Your task to perform on an android device: turn off smart reply in the gmail app Image 0: 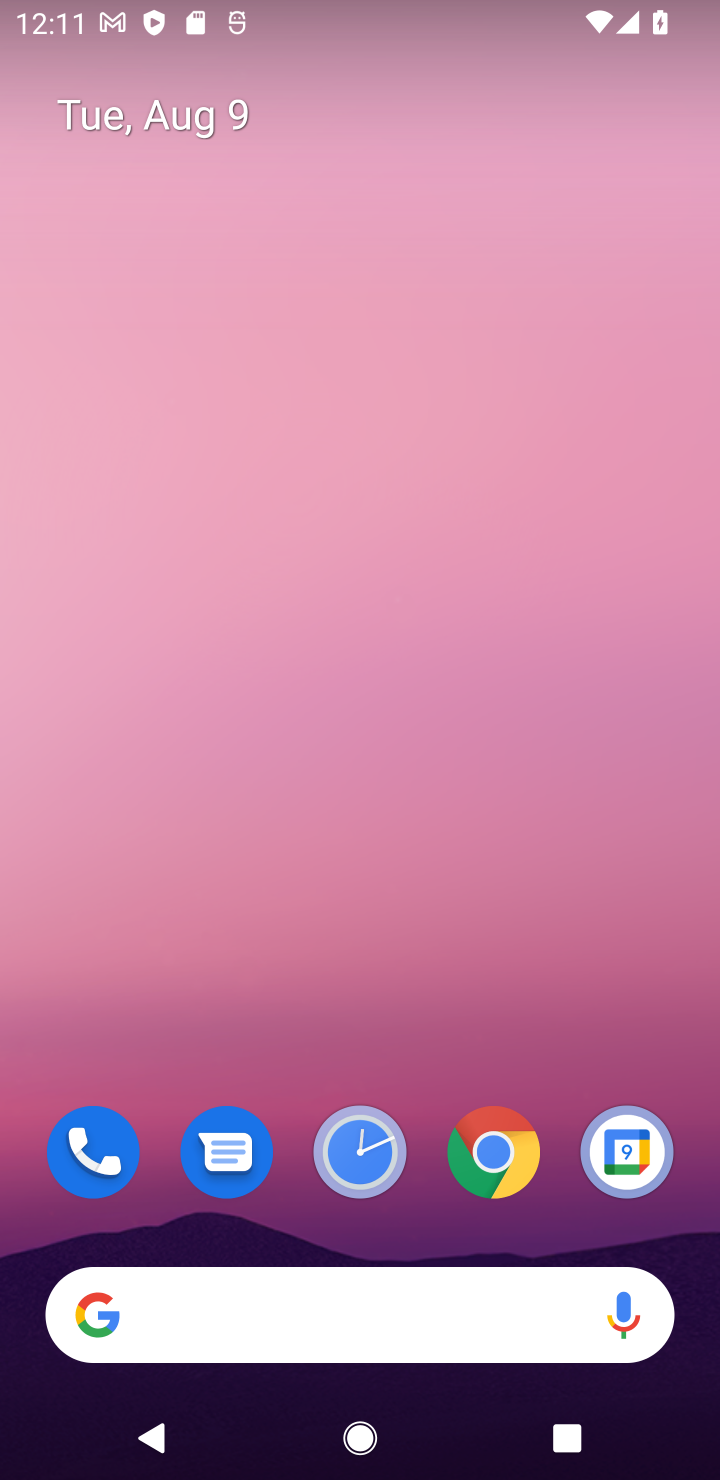
Step 0: drag from (403, 1044) to (365, 428)
Your task to perform on an android device: turn off smart reply in the gmail app Image 1: 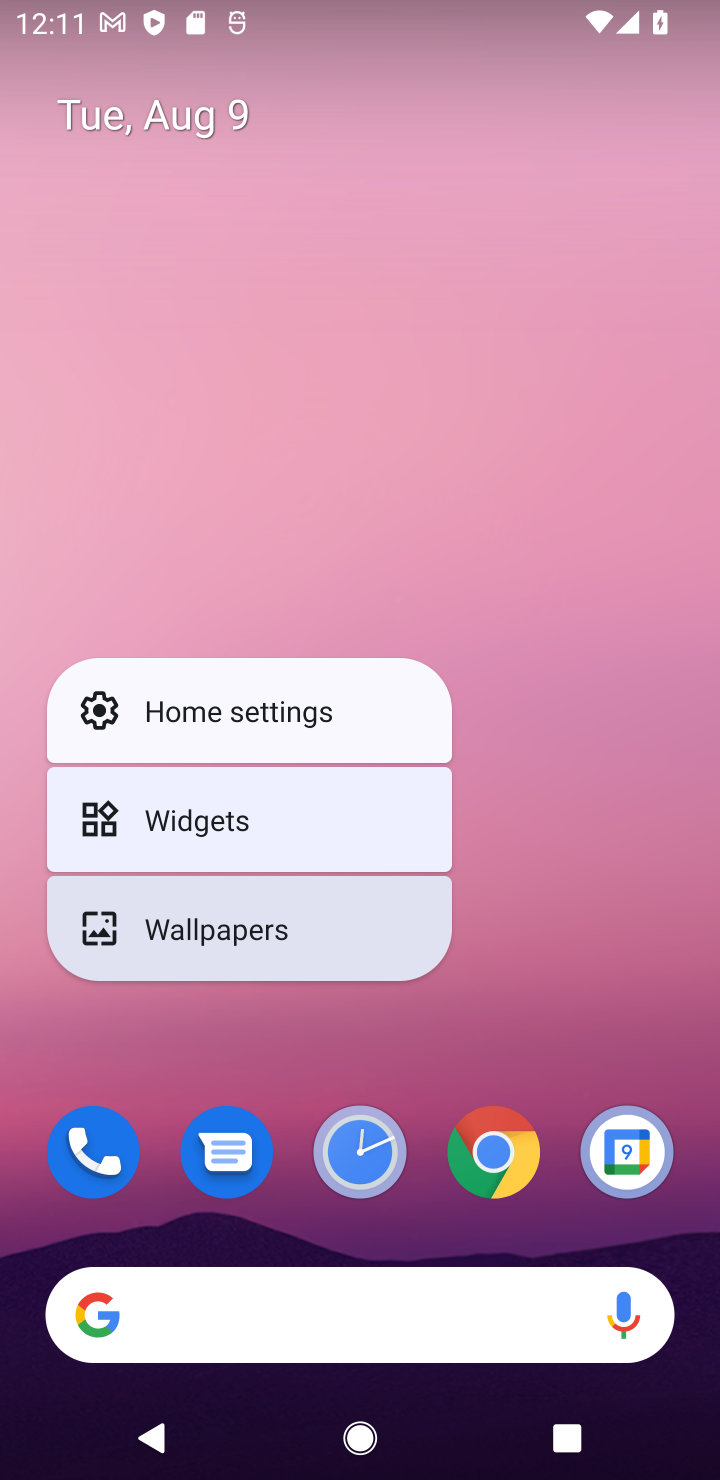
Step 1: click (516, 924)
Your task to perform on an android device: turn off smart reply in the gmail app Image 2: 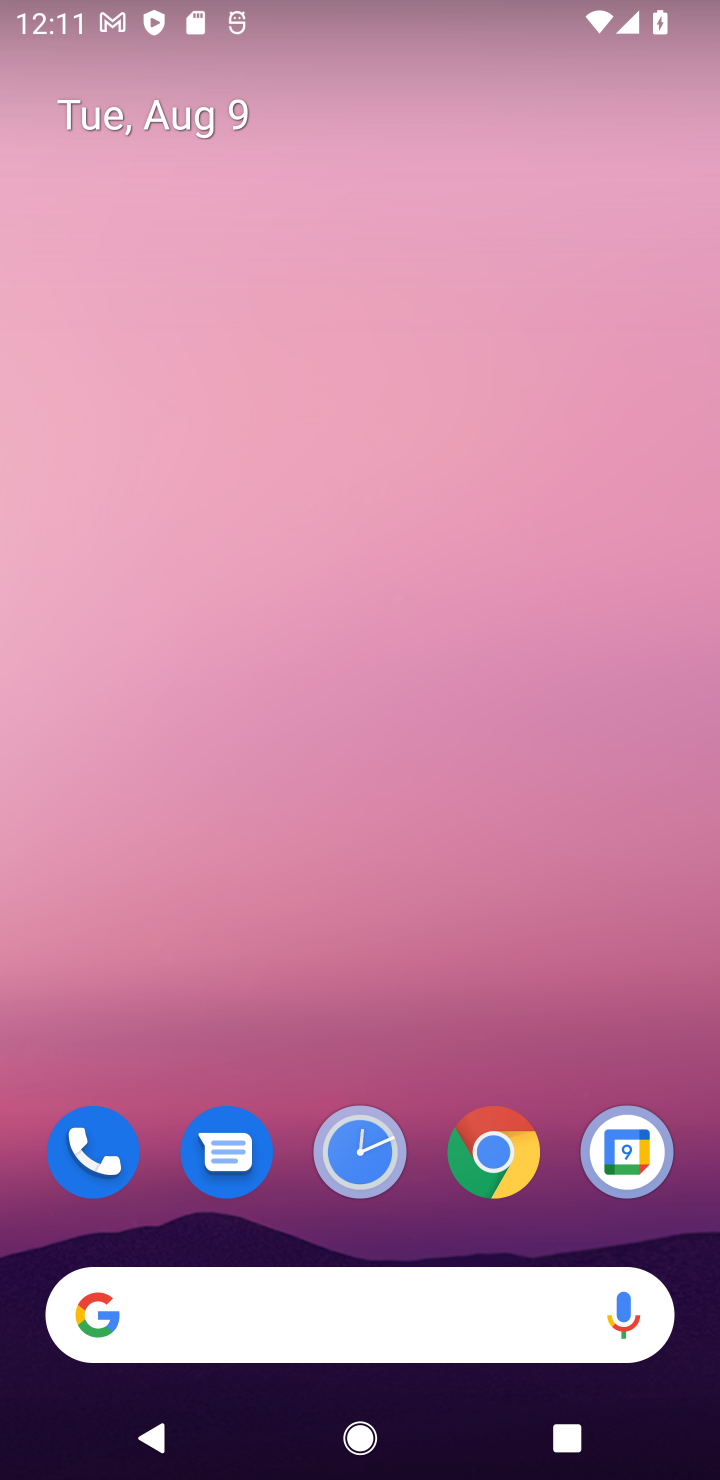
Step 2: drag from (621, 1019) to (560, 163)
Your task to perform on an android device: turn off smart reply in the gmail app Image 3: 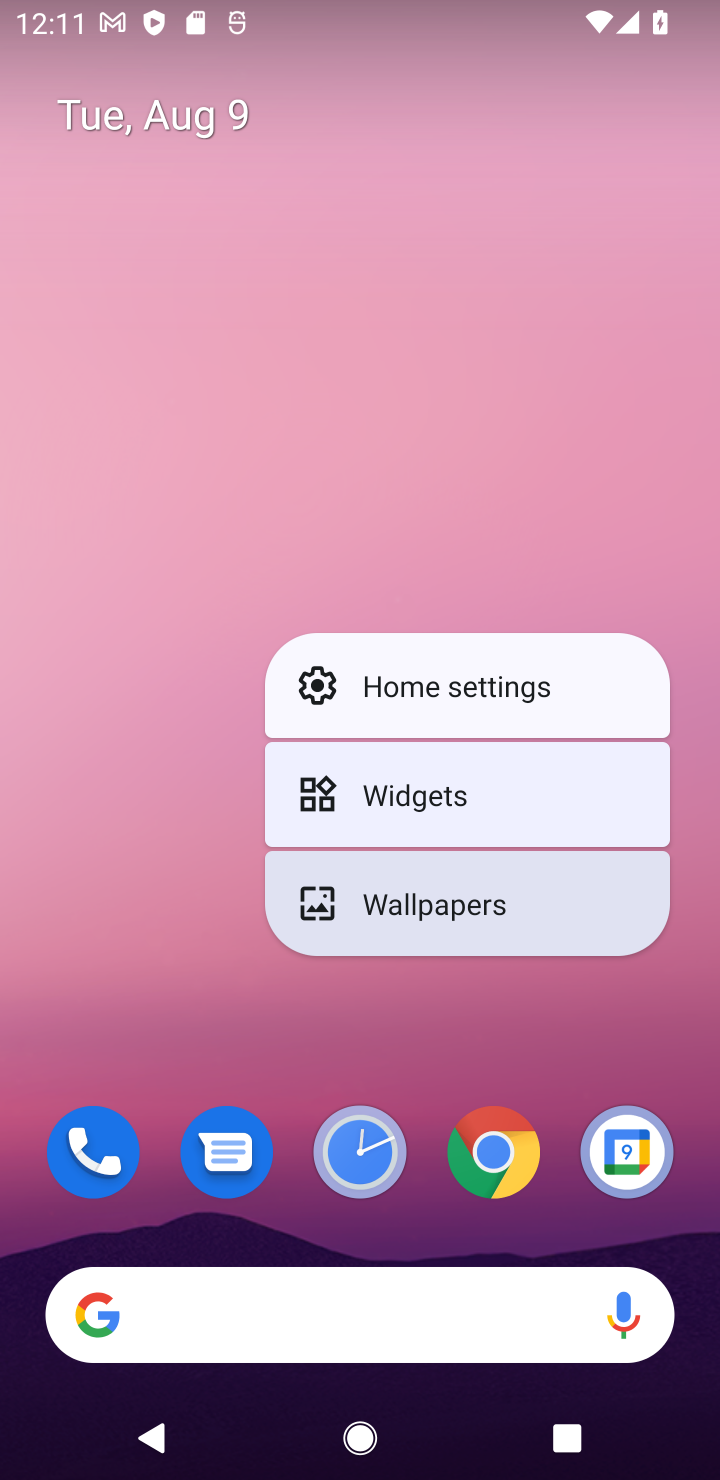
Step 3: click (626, 1041)
Your task to perform on an android device: turn off smart reply in the gmail app Image 4: 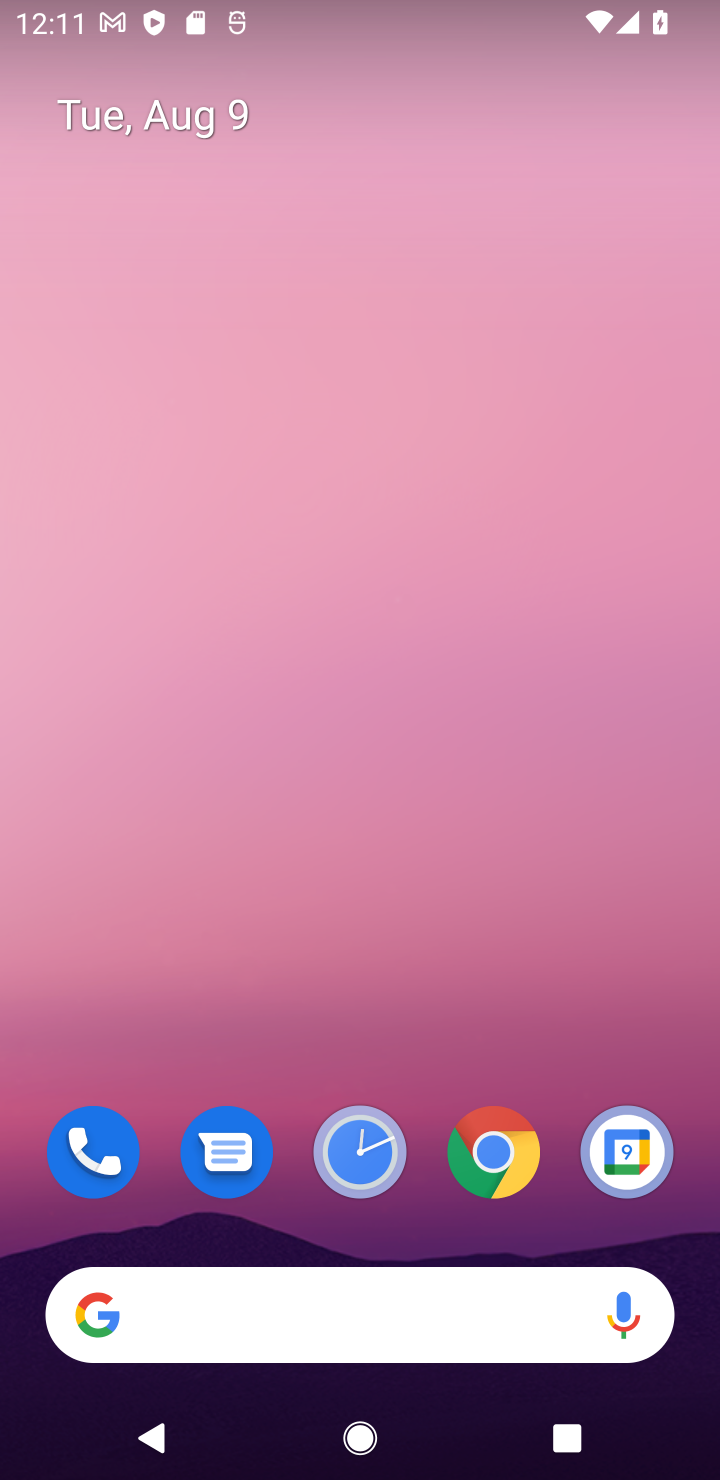
Step 4: drag from (438, 1083) to (477, 239)
Your task to perform on an android device: turn off smart reply in the gmail app Image 5: 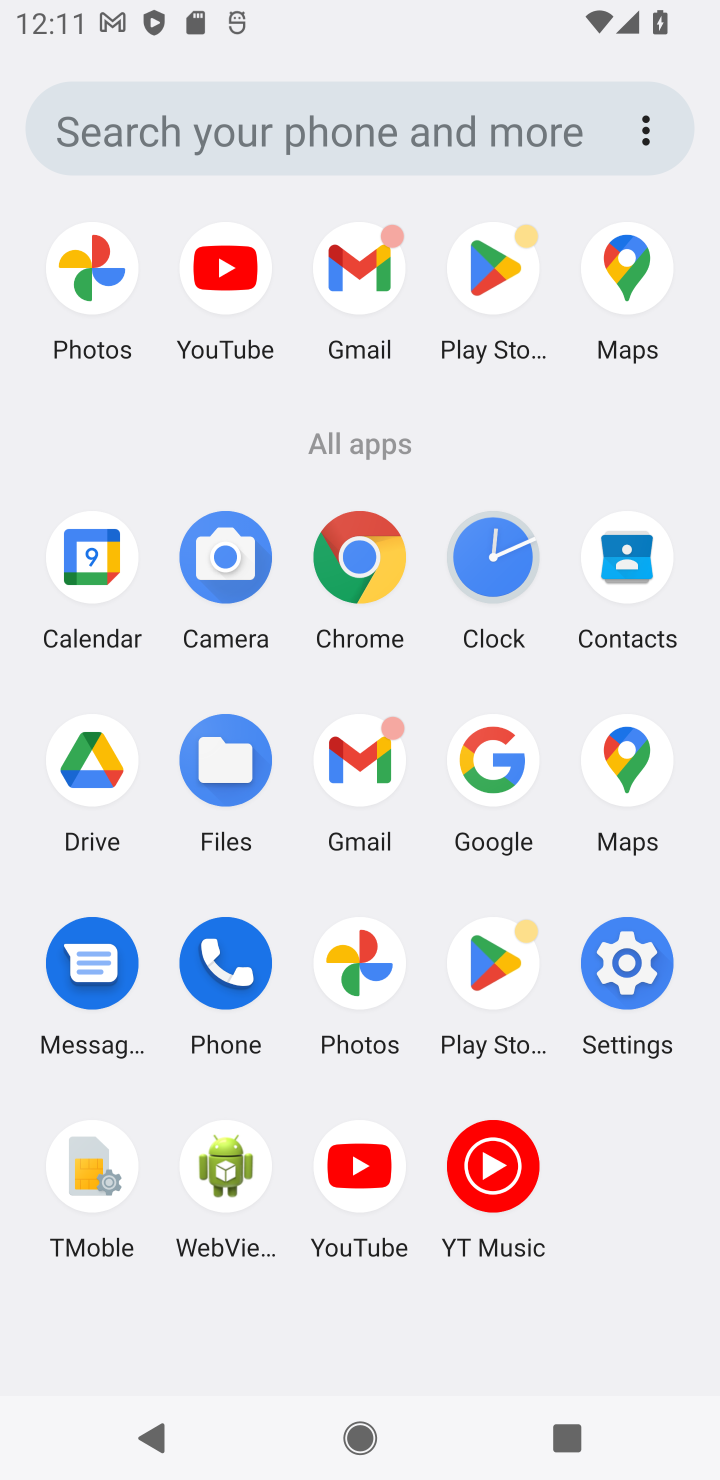
Step 5: click (365, 774)
Your task to perform on an android device: turn off smart reply in the gmail app Image 6: 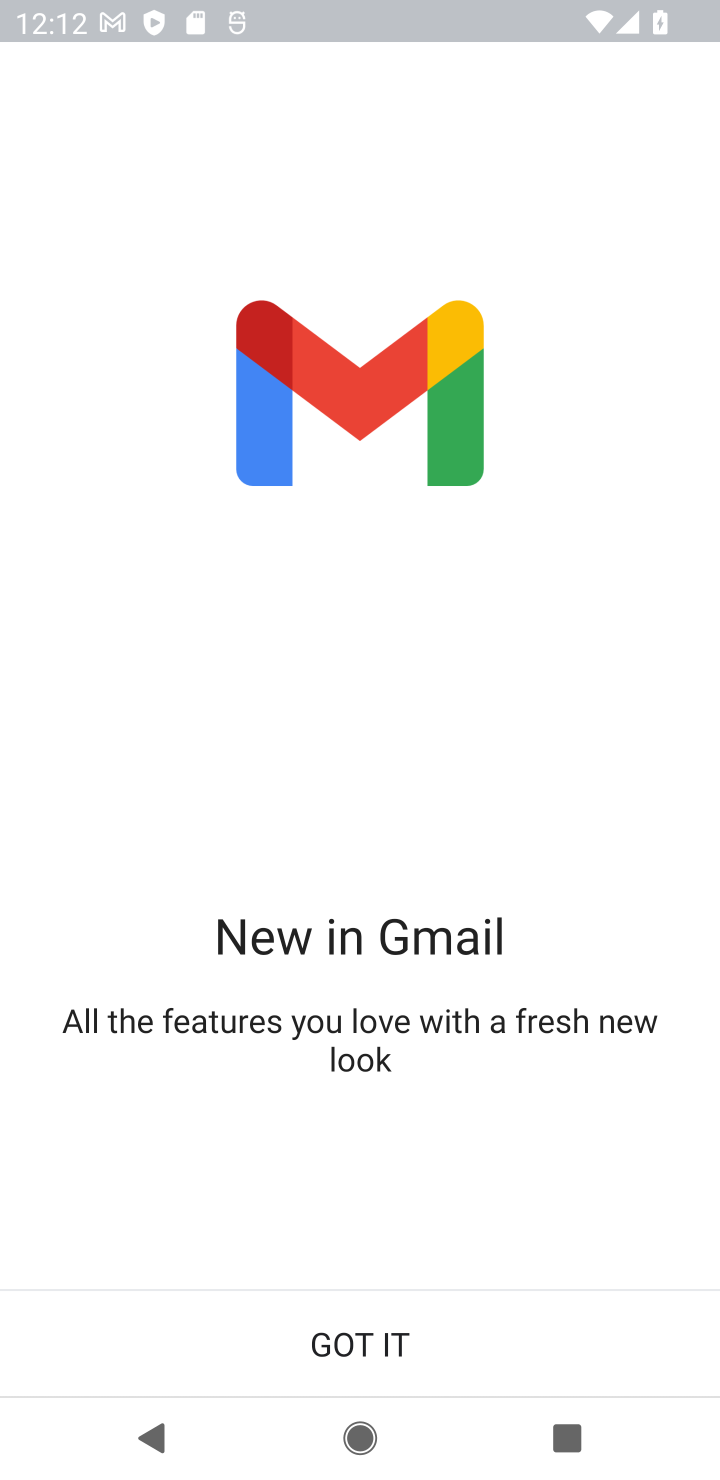
Step 6: click (471, 1309)
Your task to perform on an android device: turn off smart reply in the gmail app Image 7: 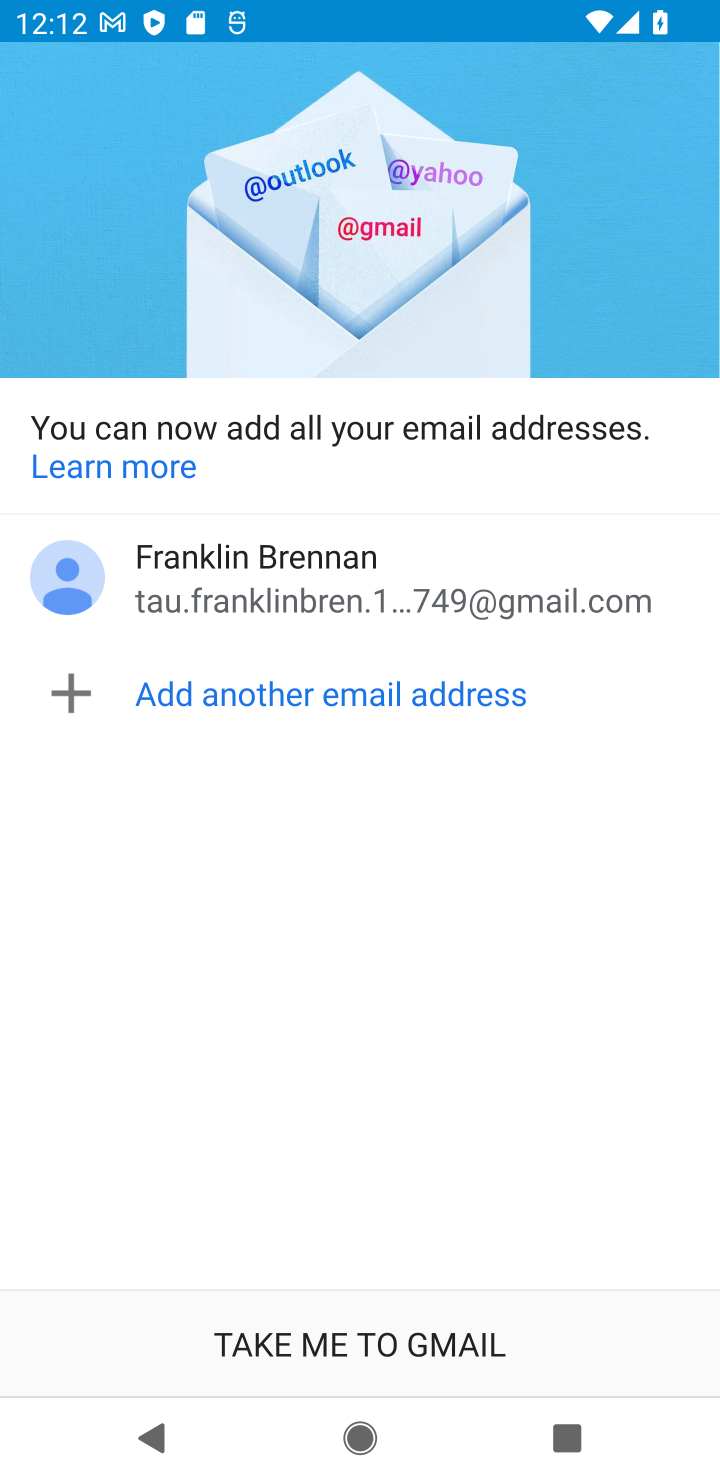
Step 7: click (478, 1325)
Your task to perform on an android device: turn off smart reply in the gmail app Image 8: 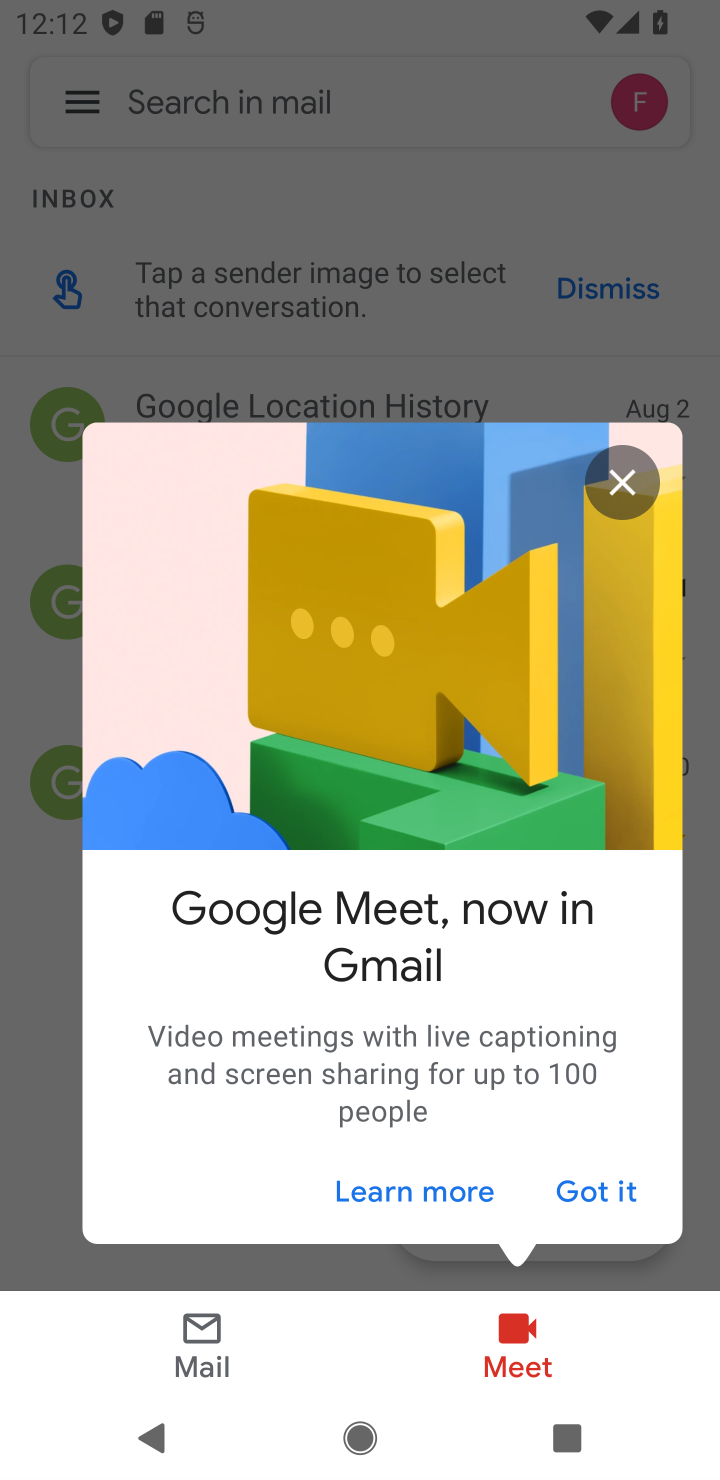
Step 8: click (627, 498)
Your task to perform on an android device: turn off smart reply in the gmail app Image 9: 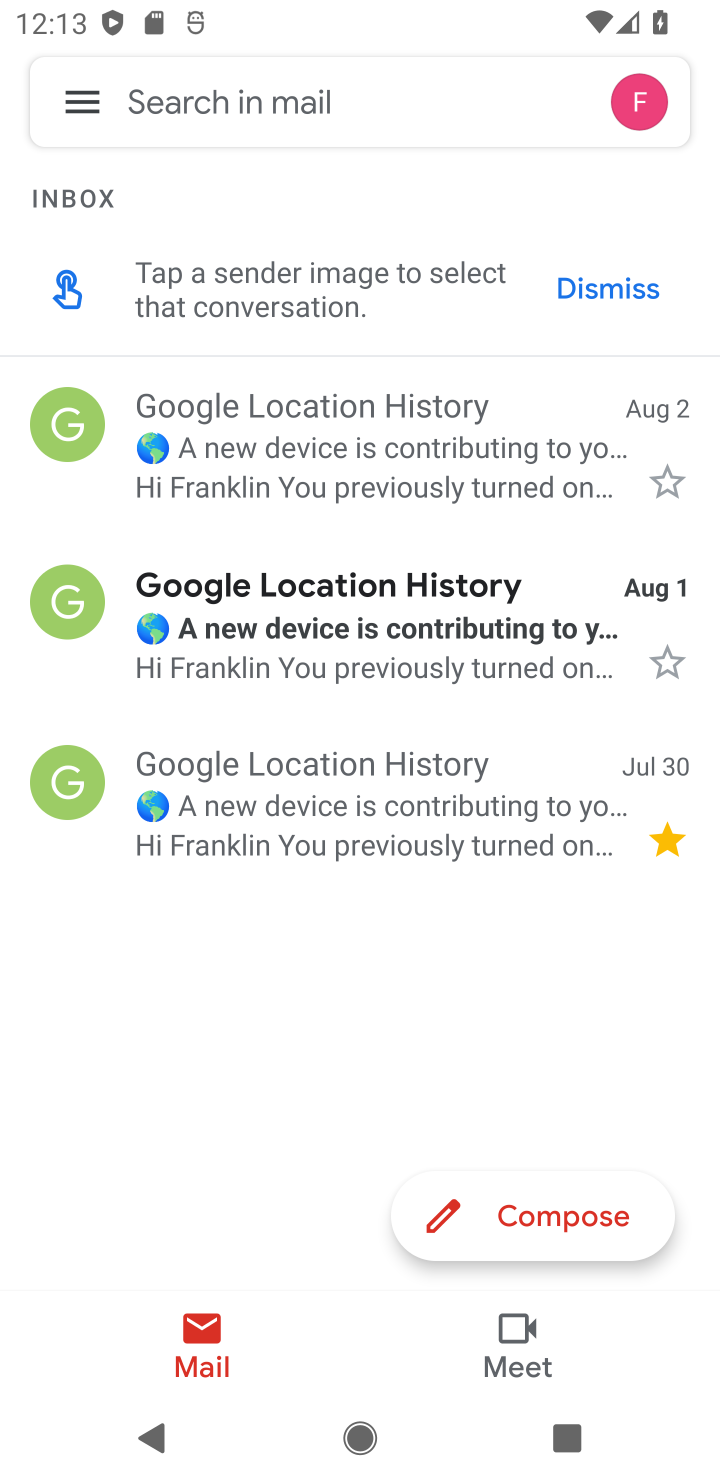
Step 9: click (55, 105)
Your task to perform on an android device: turn off smart reply in the gmail app Image 10: 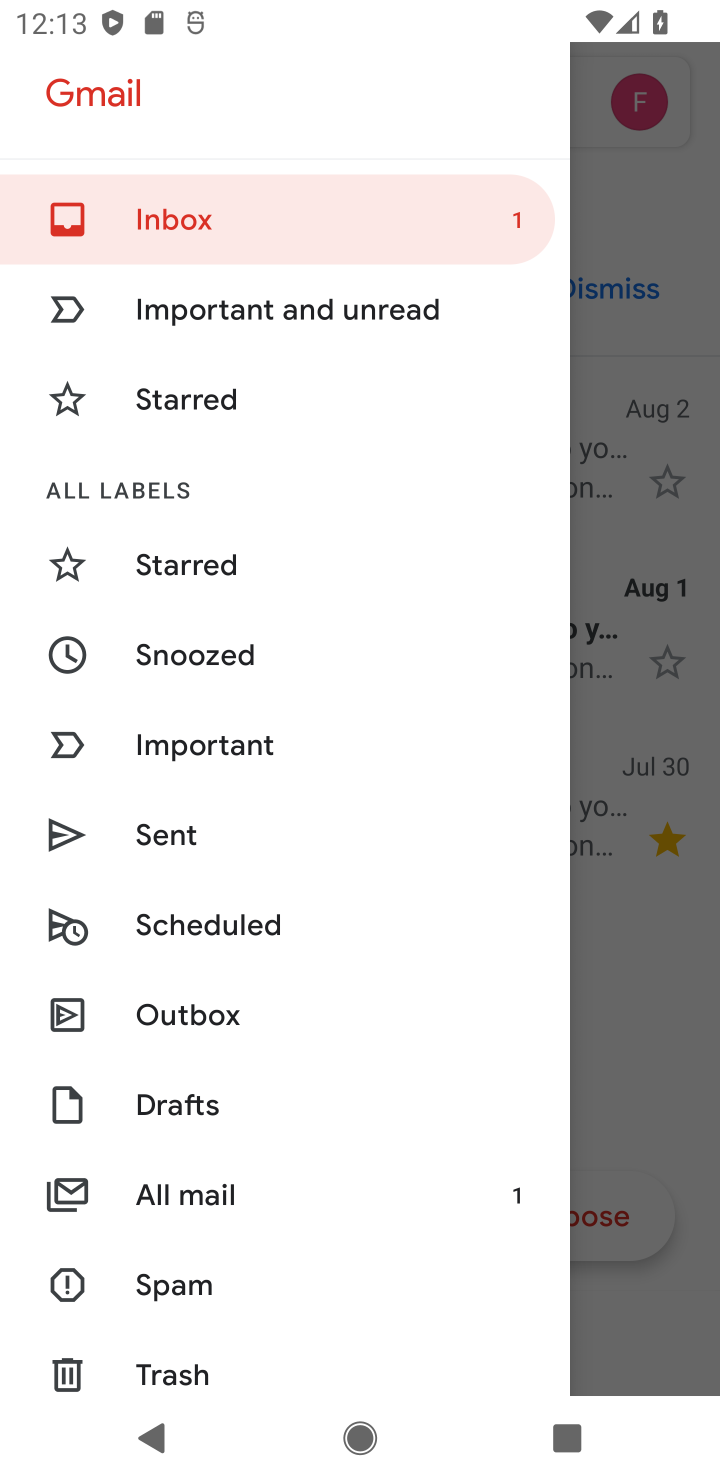
Step 10: drag from (321, 1293) to (233, 907)
Your task to perform on an android device: turn off smart reply in the gmail app Image 11: 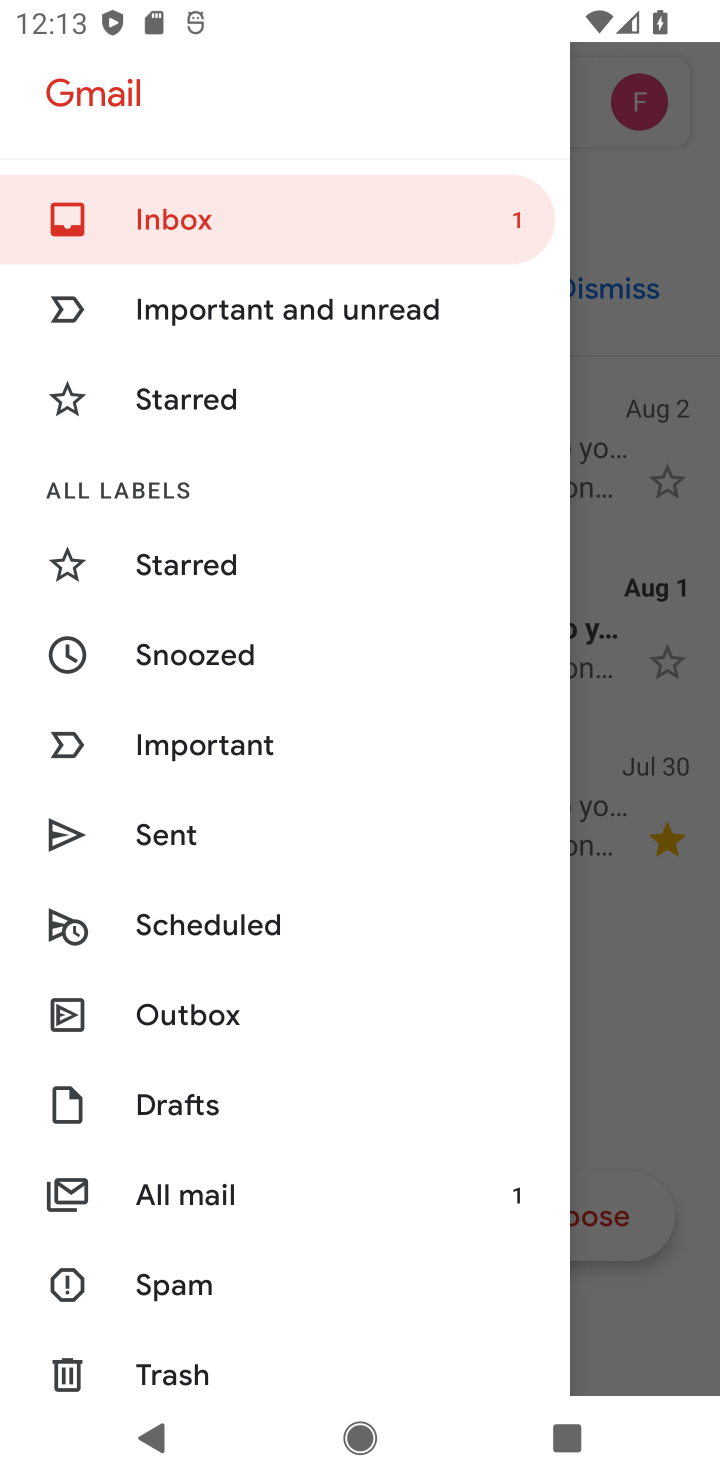
Step 11: drag from (245, 1280) to (247, 904)
Your task to perform on an android device: turn off smart reply in the gmail app Image 12: 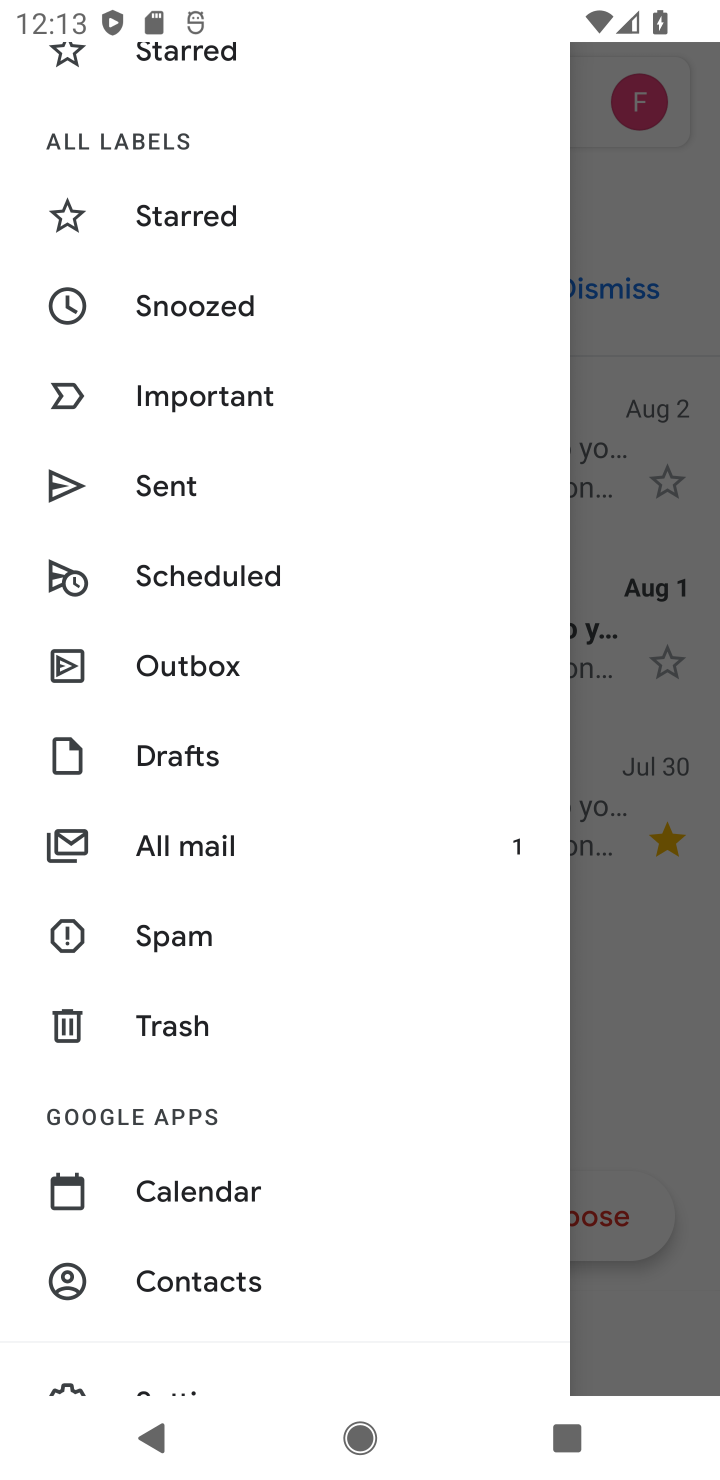
Step 12: drag from (320, 1317) to (248, 956)
Your task to perform on an android device: turn off smart reply in the gmail app Image 13: 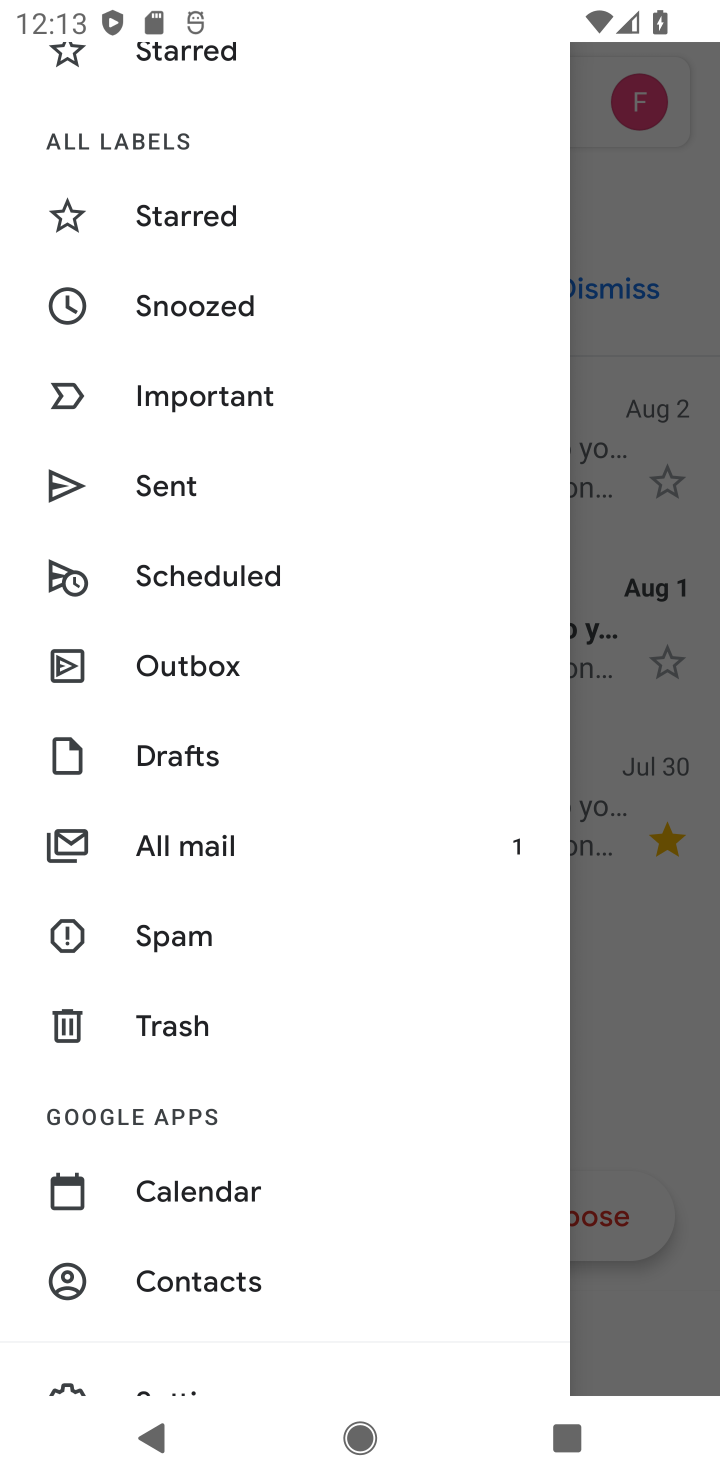
Step 13: drag from (287, 1323) to (236, 686)
Your task to perform on an android device: turn off smart reply in the gmail app Image 14: 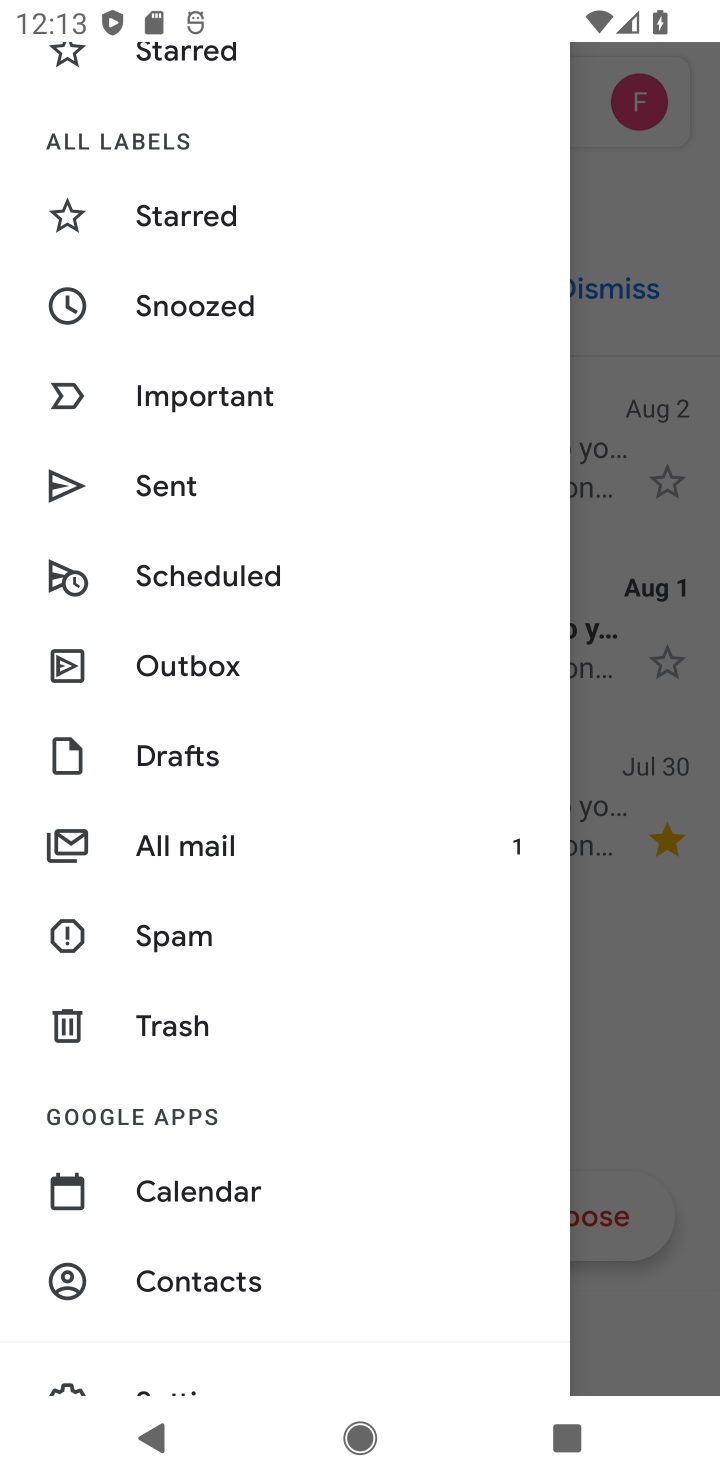
Step 14: drag from (159, 1334) to (234, 791)
Your task to perform on an android device: turn off smart reply in the gmail app Image 15: 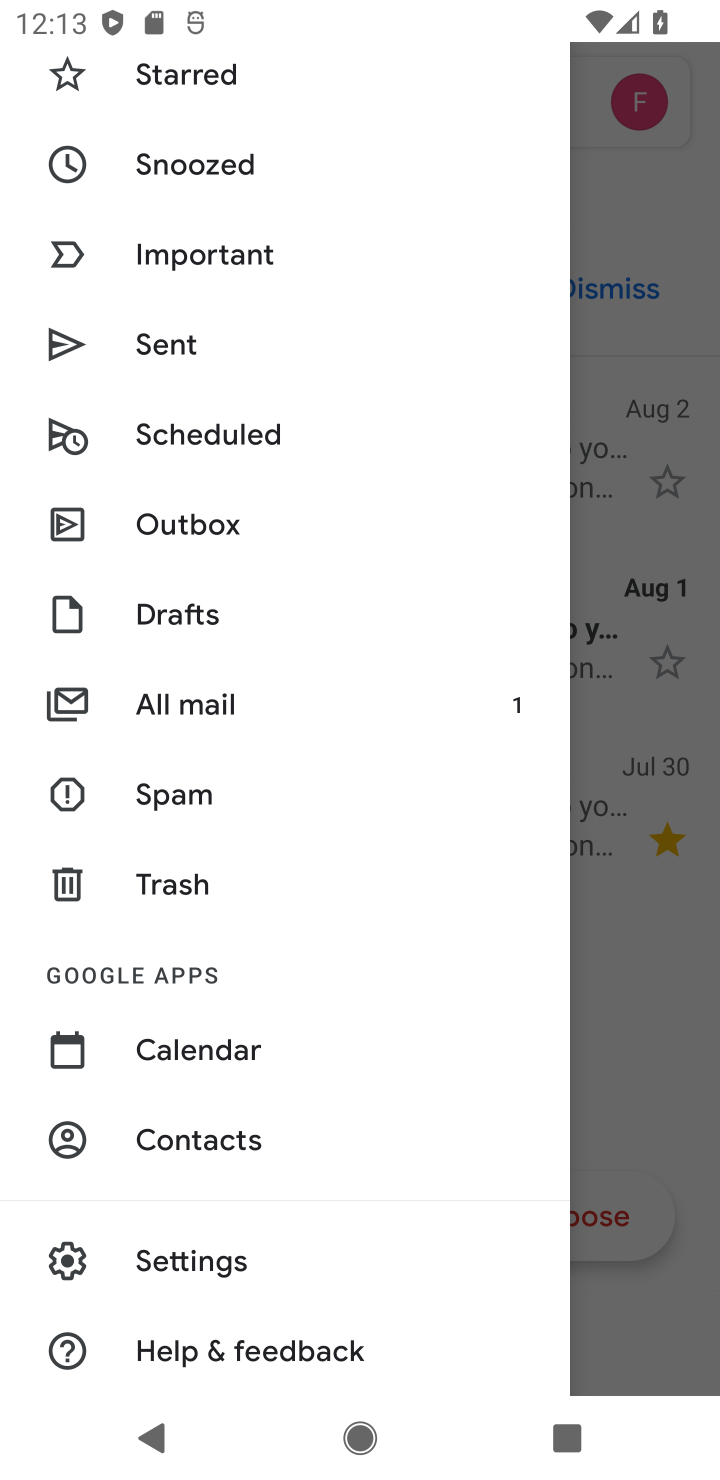
Step 15: click (219, 1254)
Your task to perform on an android device: turn off smart reply in the gmail app Image 16: 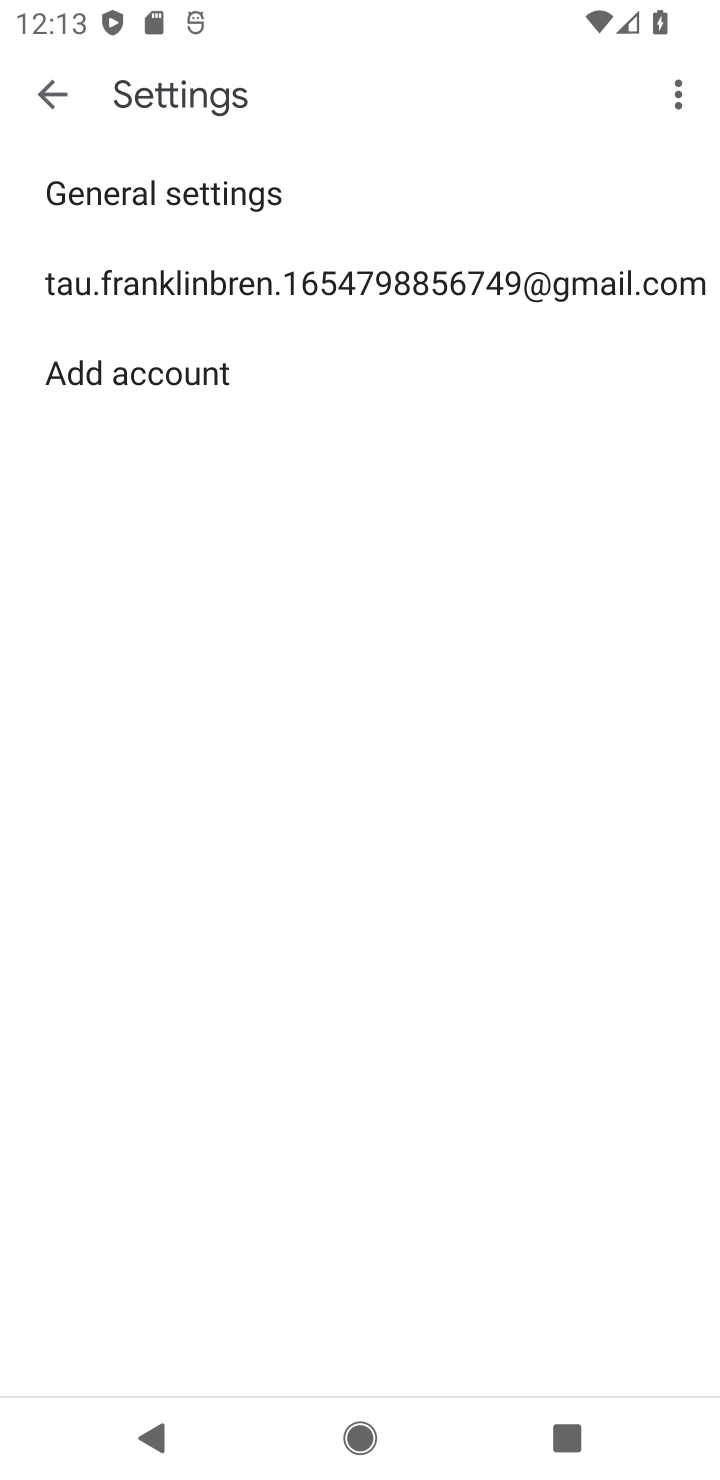
Step 16: click (413, 281)
Your task to perform on an android device: turn off smart reply in the gmail app Image 17: 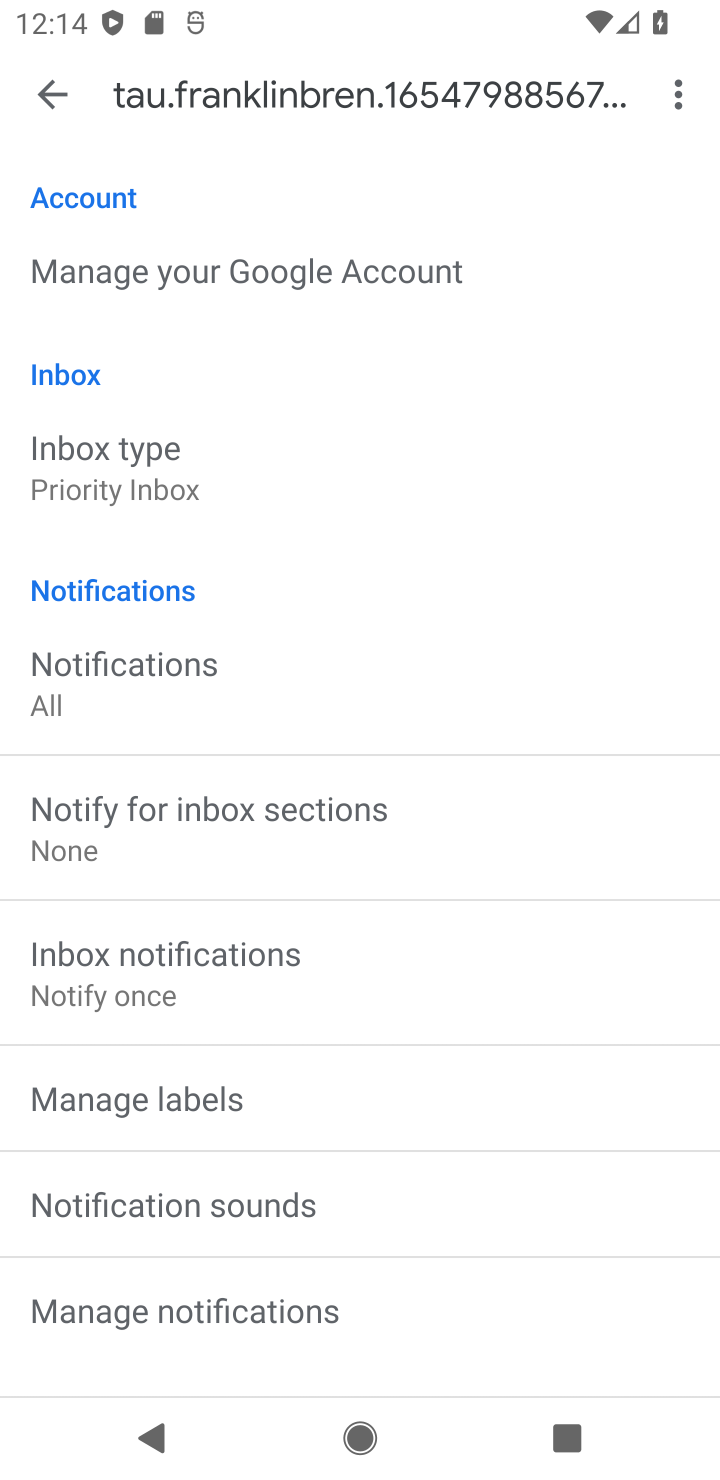
Step 17: drag from (516, 1326) to (479, 699)
Your task to perform on an android device: turn off smart reply in the gmail app Image 18: 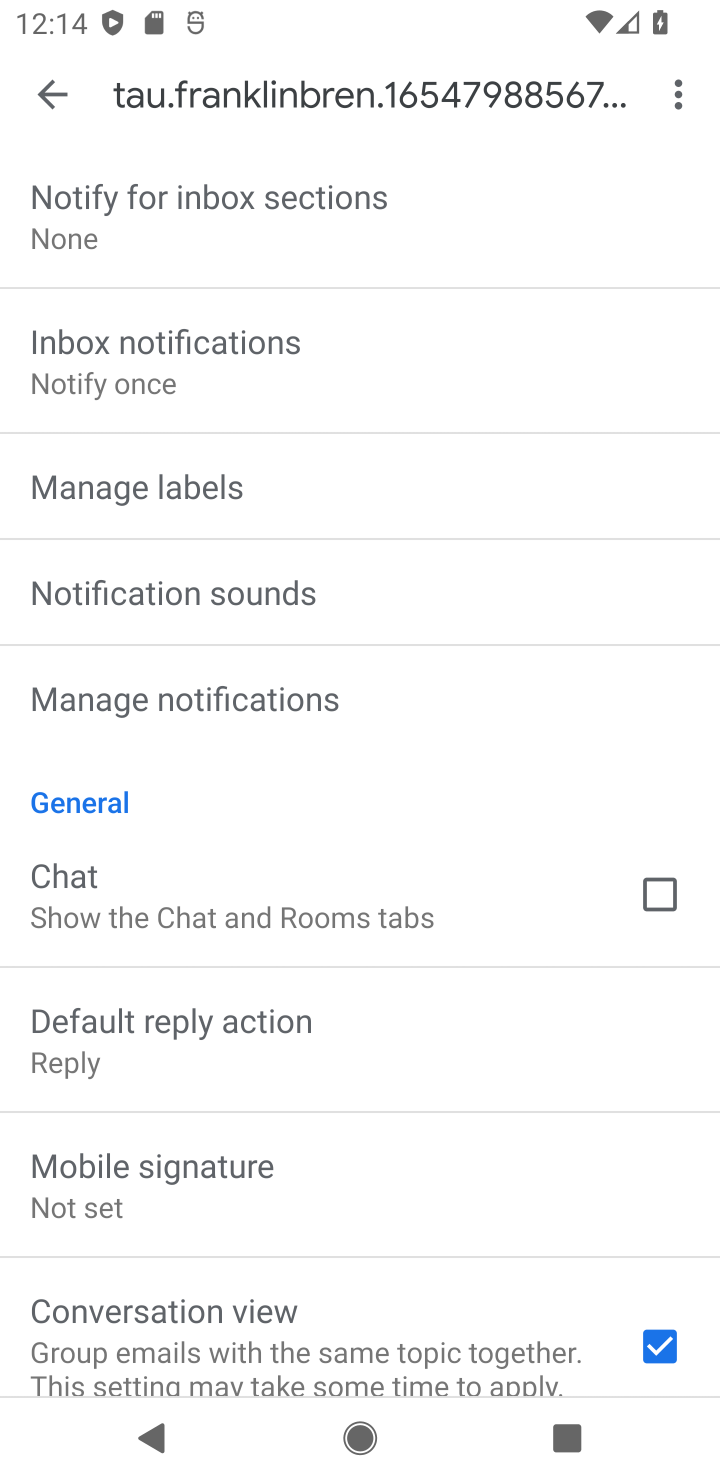
Step 18: drag from (404, 1238) to (403, 485)
Your task to perform on an android device: turn off smart reply in the gmail app Image 19: 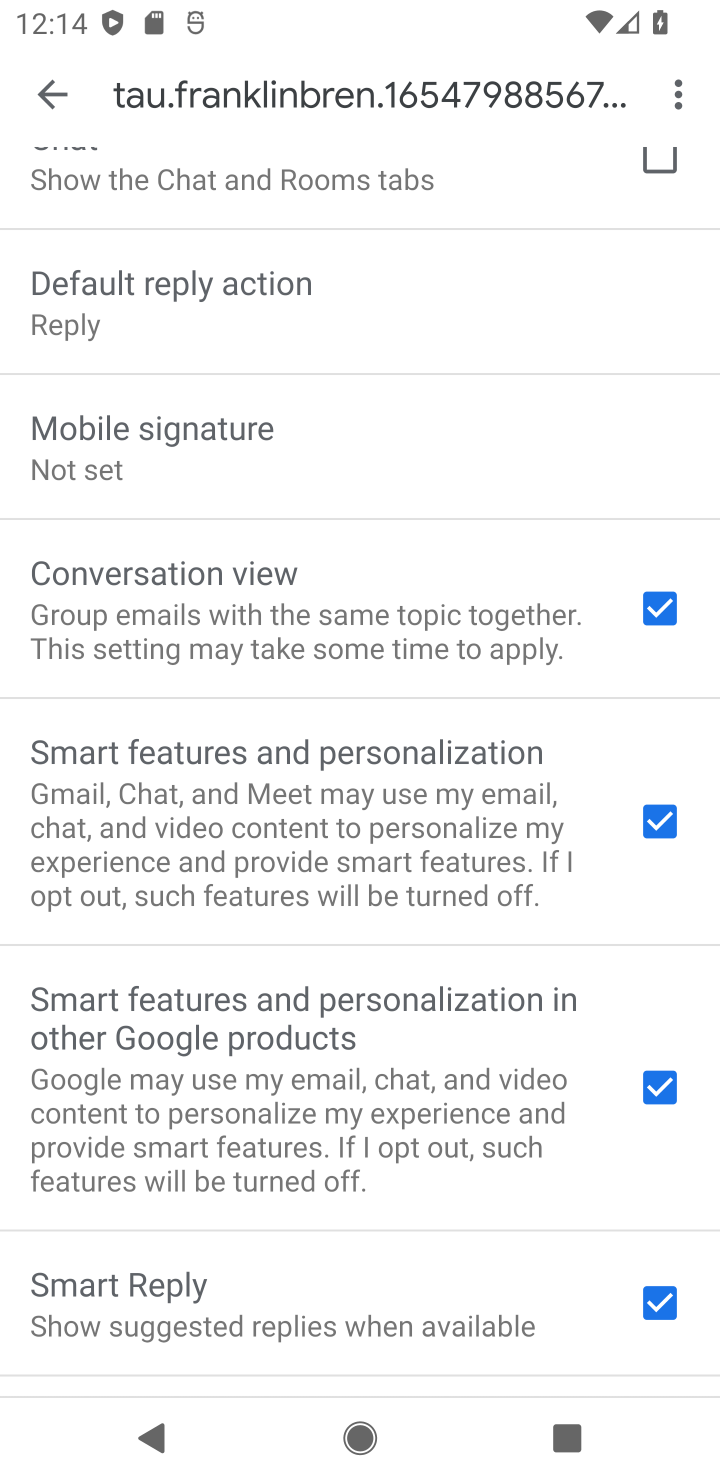
Step 19: click (658, 1305)
Your task to perform on an android device: turn off smart reply in the gmail app Image 20: 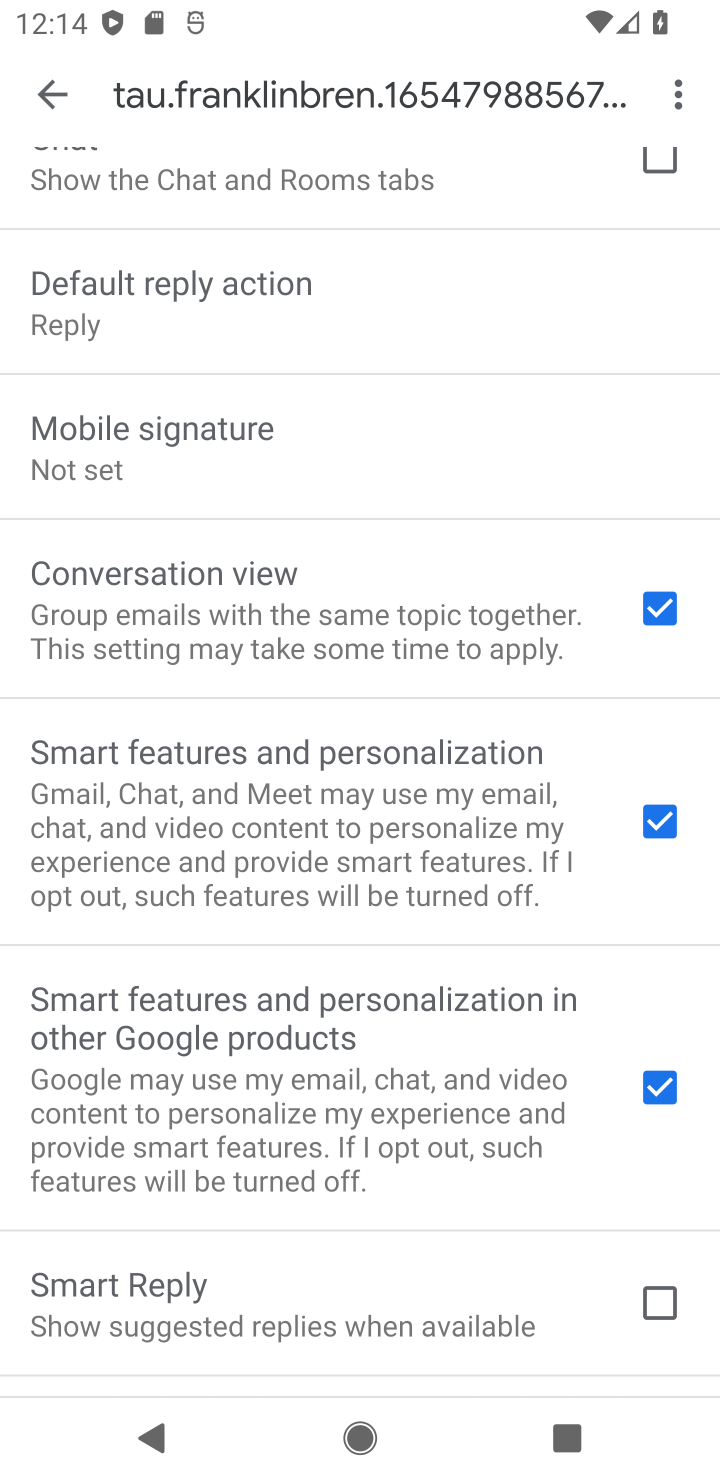
Step 20: task complete